Your task to perform on an android device: Go to calendar. Show me events next week Image 0: 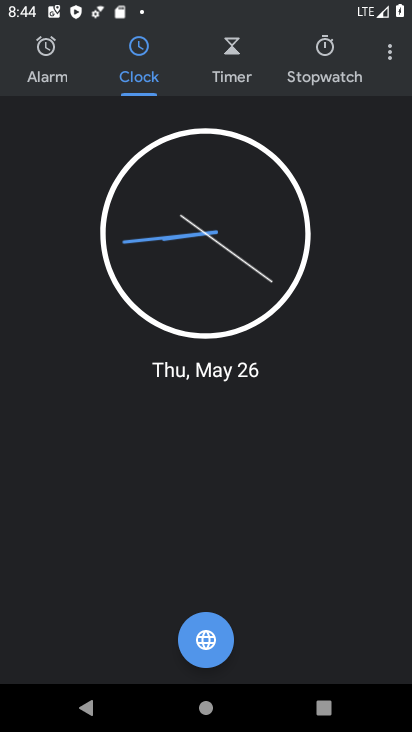
Step 0: press home button
Your task to perform on an android device: Go to calendar. Show me events next week Image 1: 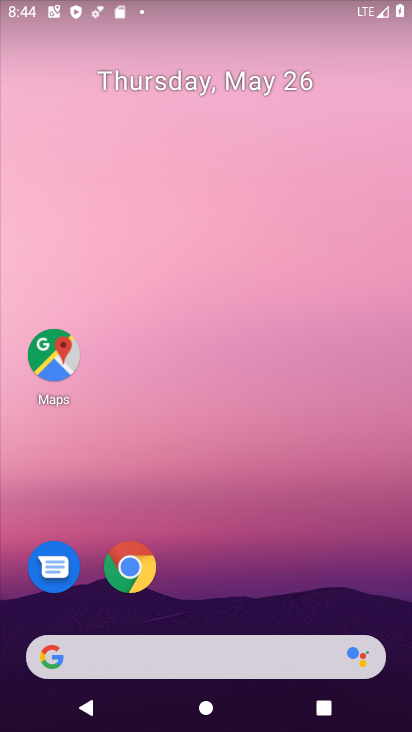
Step 1: drag from (137, 660) to (220, 87)
Your task to perform on an android device: Go to calendar. Show me events next week Image 2: 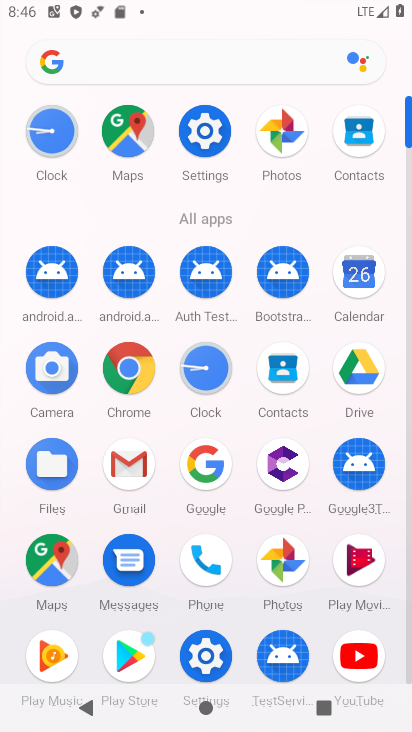
Step 2: click (392, 280)
Your task to perform on an android device: Go to calendar. Show me events next week Image 3: 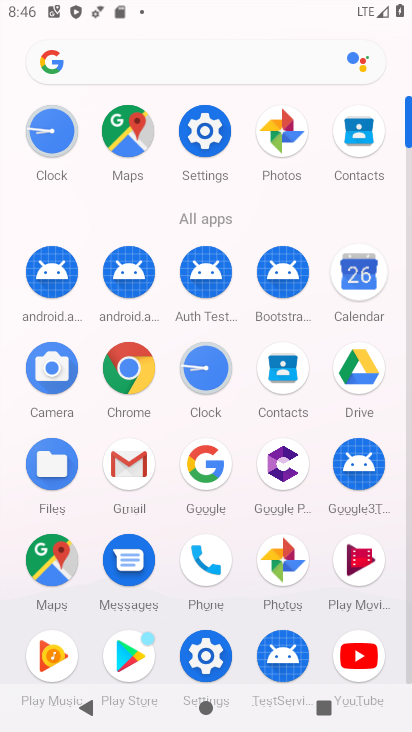
Step 3: click (372, 284)
Your task to perform on an android device: Go to calendar. Show me events next week Image 4: 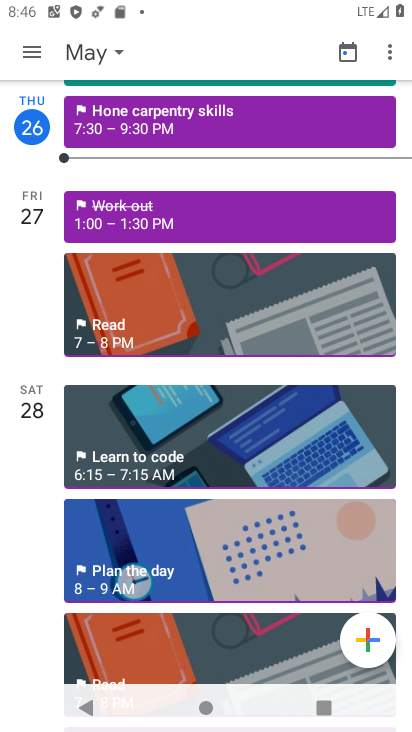
Step 4: click (89, 52)
Your task to perform on an android device: Go to calendar. Show me events next week Image 5: 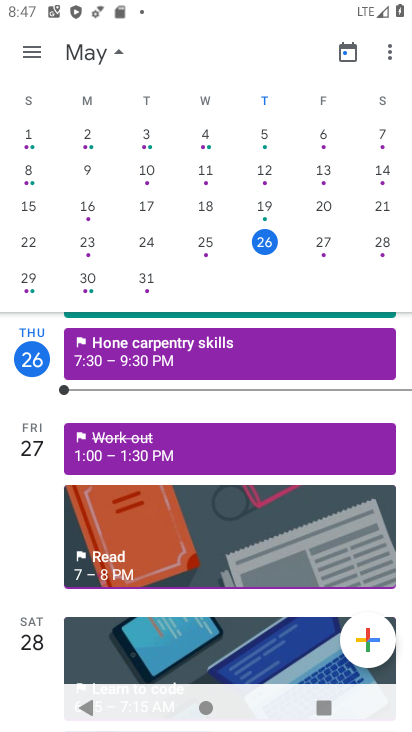
Step 5: click (27, 280)
Your task to perform on an android device: Go to calendar. Show me events next week Image 6: 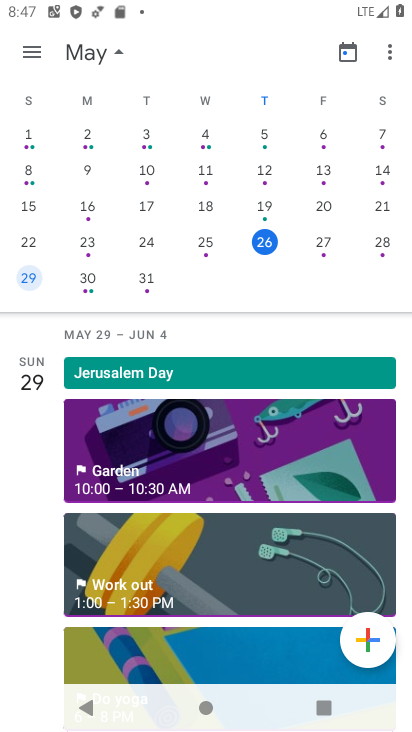
Step 6: task complete